Your task to perform on an android device: Go to wifi settings Image 0: 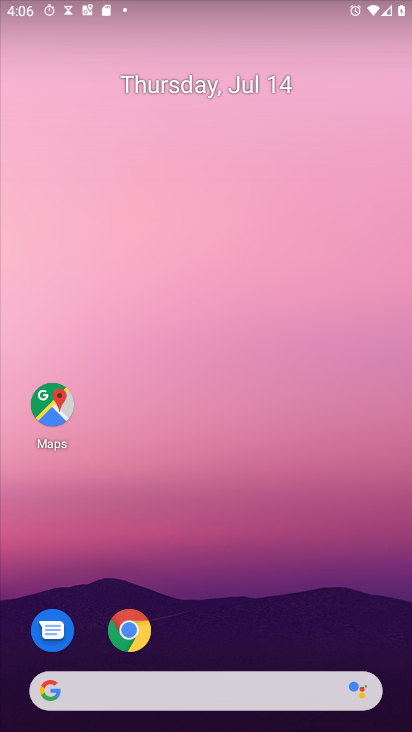
Step 0: drag from (223, 728) to (224, 107)
Your task to perform on an android device: Go to wifi settings Image 1: 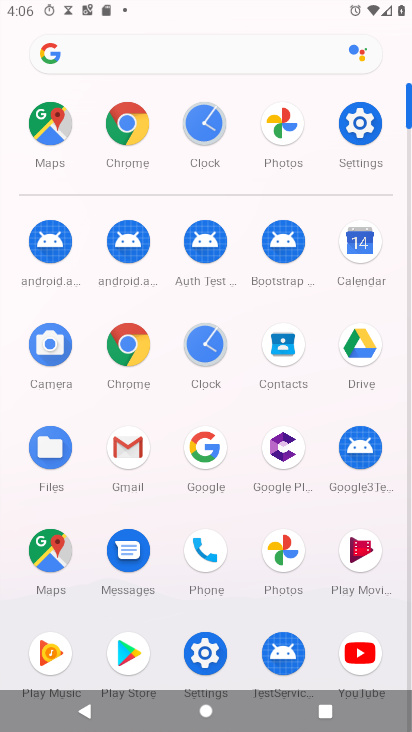
Step 1: click (362, 123)
Your task to perform on an android device: Go to wifi settings Image 2: 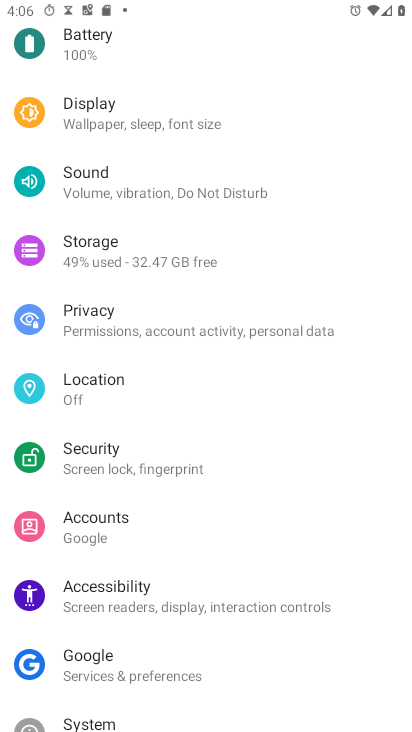
Step 2: drag from (156, 90) to (156, 524)
Your task to perform on an android device: Go to wifi settings Image 3: 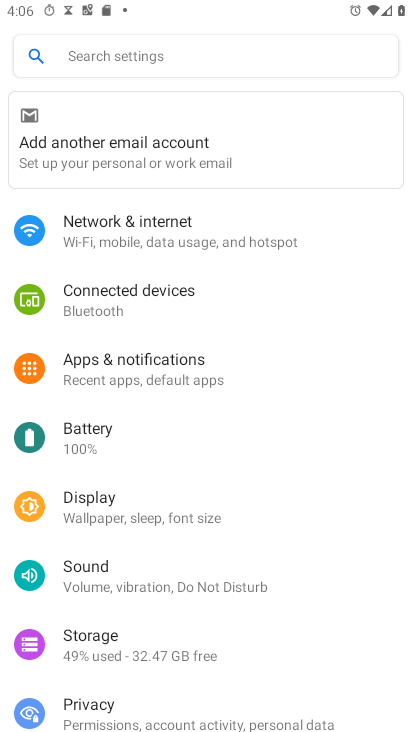
Step 3: click (132, 228)
Your task to perform on an android device: Go to wifi settings Image 4: 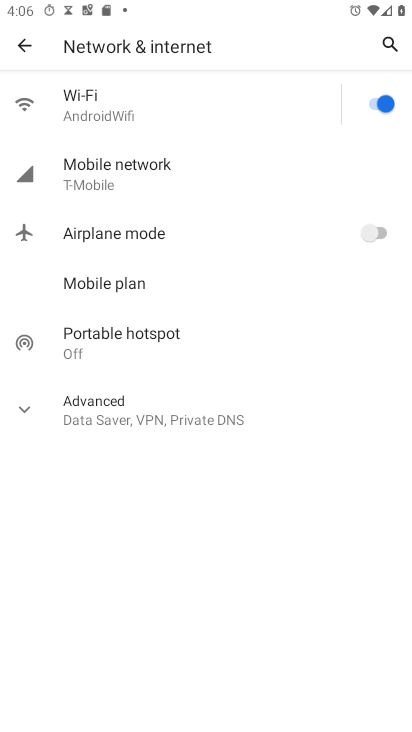
Step 4: click (91, 111)
Your task to perform on an android device: Go to wifi settings Image 5: 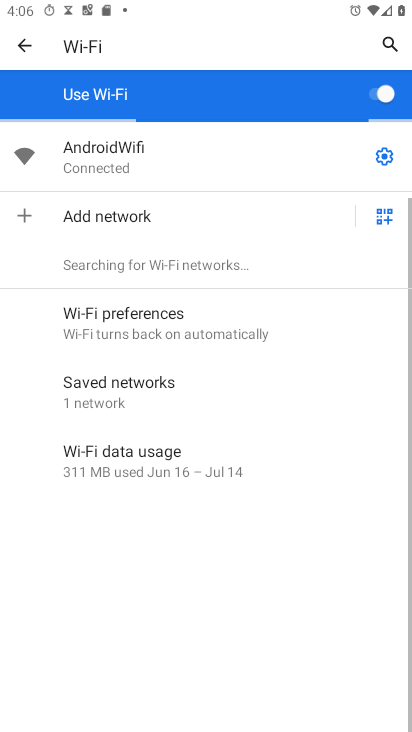
Step 5: task complete